Your task to perform on an android device: Open Google Maps and go to "Timeline" Image 0: 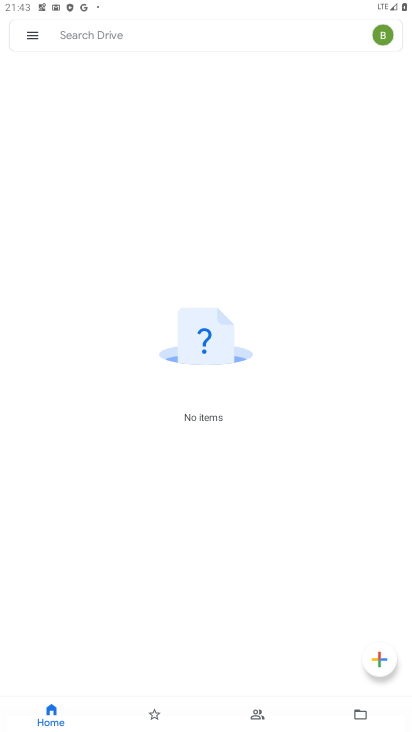
Step 0: press home button
Your task to perform on an android device: Open Google Maps and go to "Timeline" Image 1: 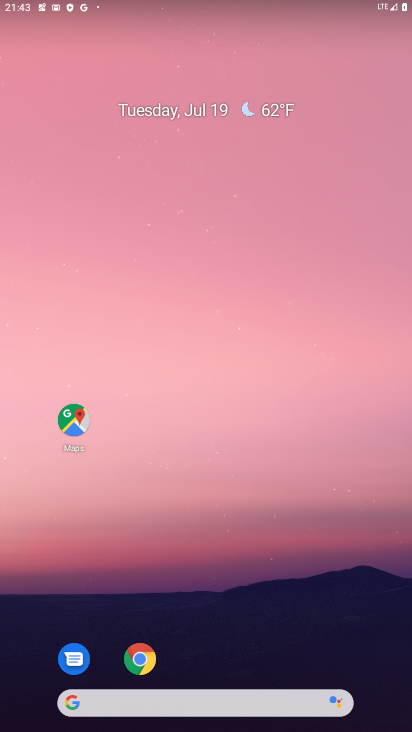
Step 1: drag from (188, 686) to (298, 37)
Your task to perform on an android device: Open Google Maps and go to "Timeline" Image 2: 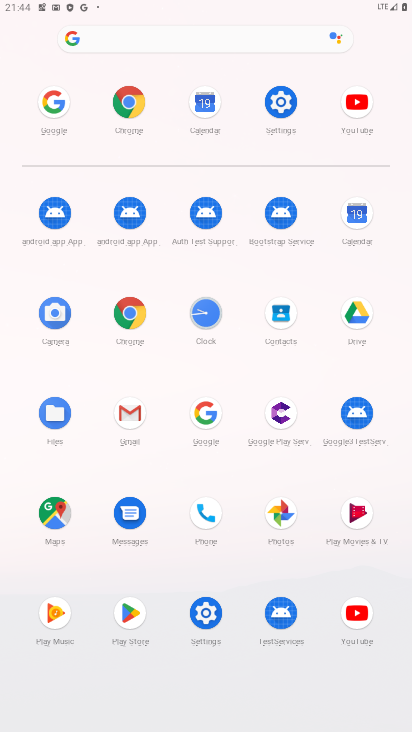
Step 2: click (43, 510)
Your task to perform on an android device: Open Google Maps and go to "Timeline" Image 3: 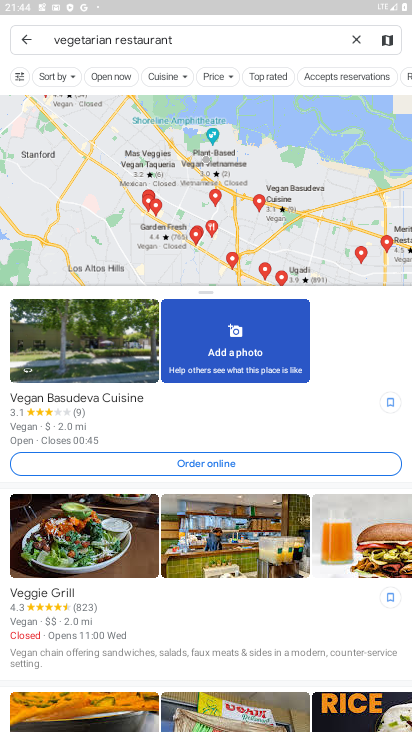
Step 3: click (24, 35)
Your task to perform on an android device: Open Google Maps and go to "Timeline" Image 4: 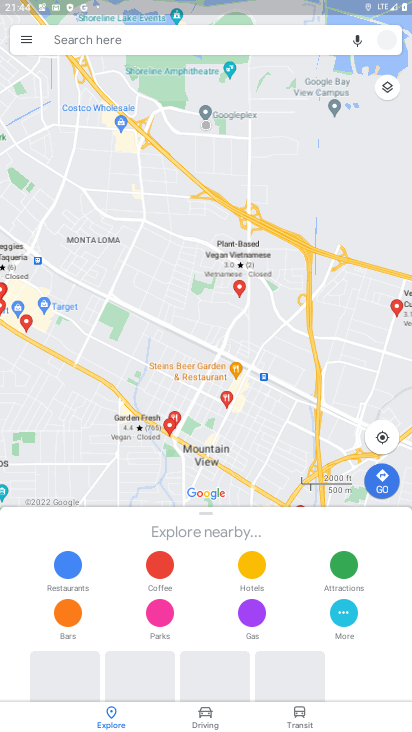
Step 4: click (24, 35)
Your task to perform on an android device: Open Google Maps and go to "Timeline" Image 5: 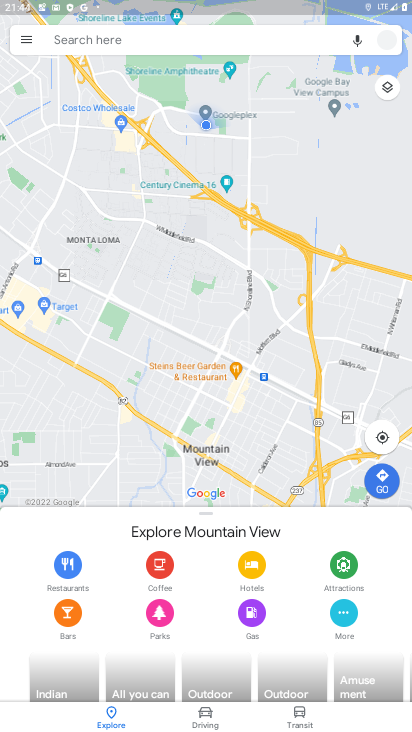
Step 5: click (24, 35)
Your task to perform on an android device: Open Google Maps and go to "Timeline" Image 6: 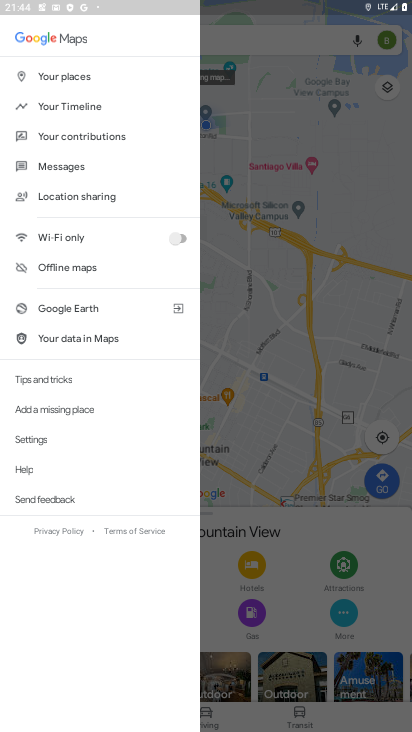
Step 6: click (34, 108)
Your task to perform on an android device: Open Google Maps and go to "Timeline" Image 7: 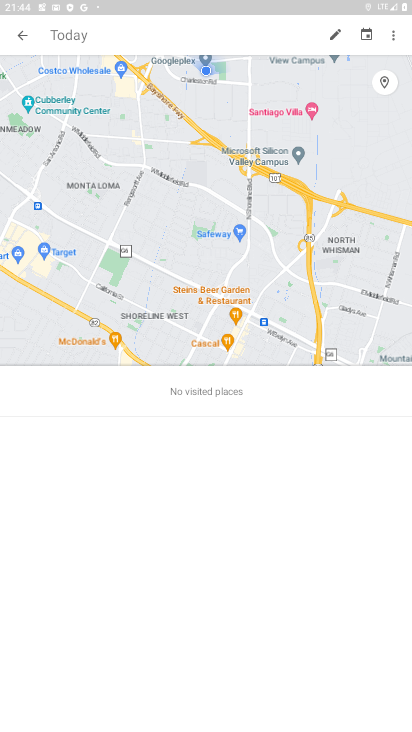
Step 7: task complete